Your task to perform on an android device: turn on the 24-hour format for clock Image 0: 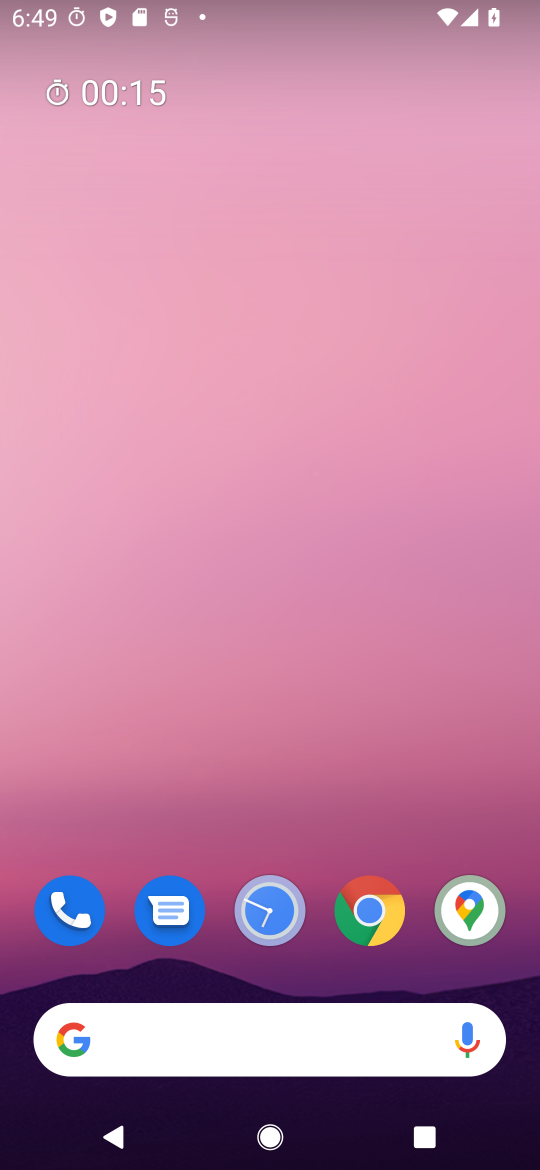
Step 0: drag from (181, 1019) to (172, 114)
Your task to perform on an android device: turn on the 24-hour format for clock Image 1: 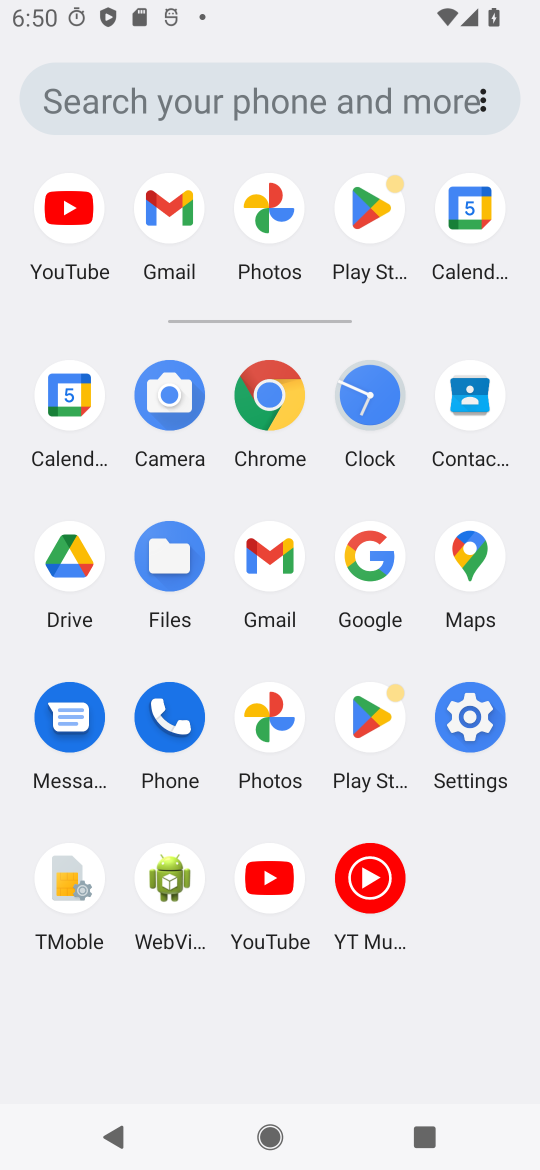
Step 1: click (383, 407)
Your task to perform on an android device: turn on the 24-hour format for clock Image 2: 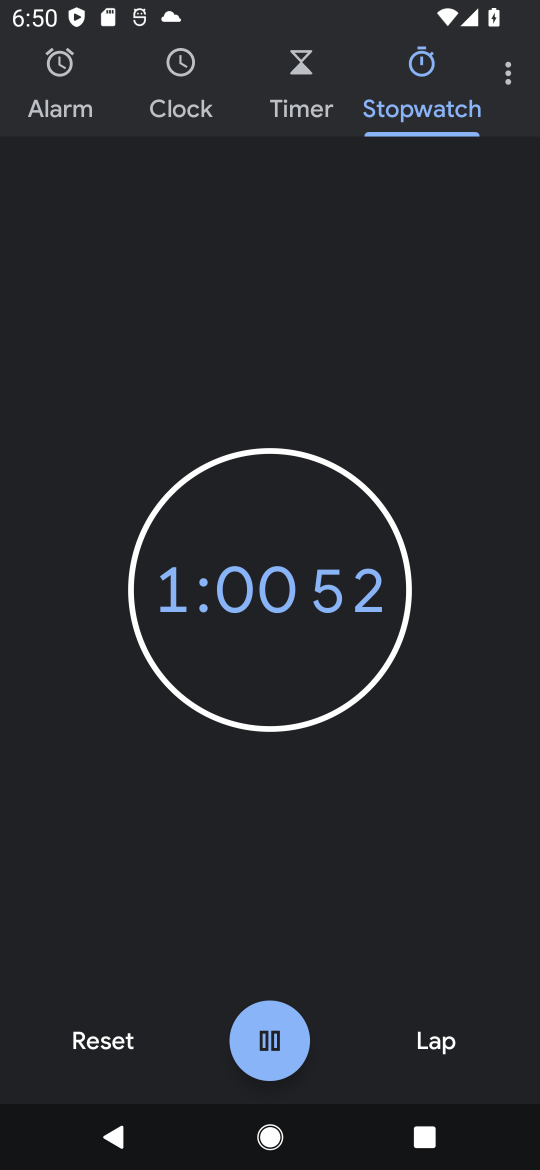
Step 2: click (511, 74)
Your task to perform on an android device: turn on the 24-hour format for clock Image 3: 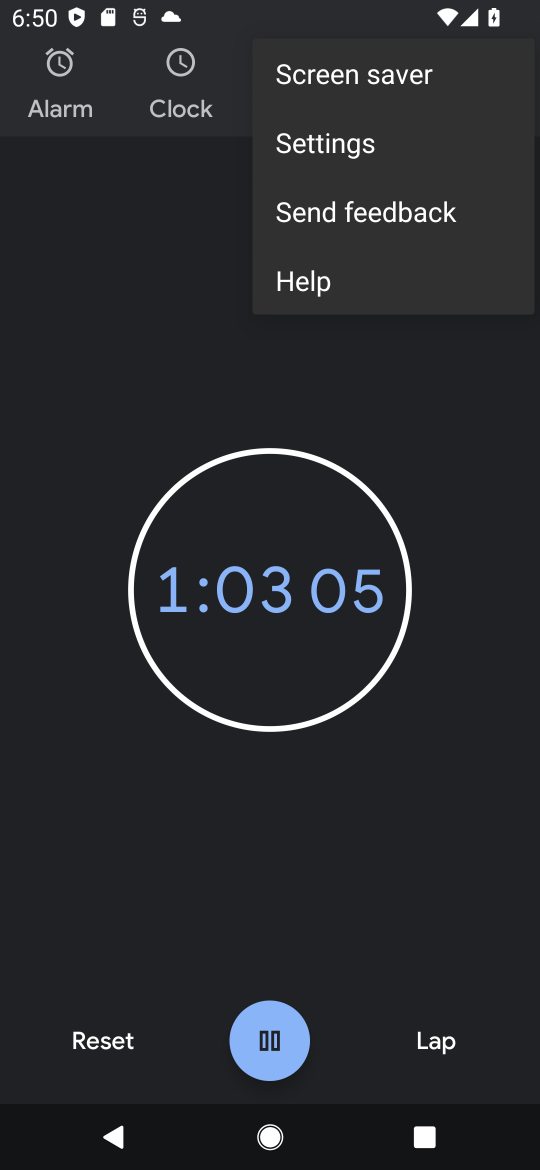
Step 3: click (370, 138)
Your task to perform on an android device: turn on the 24-hour format for clock Image 4: 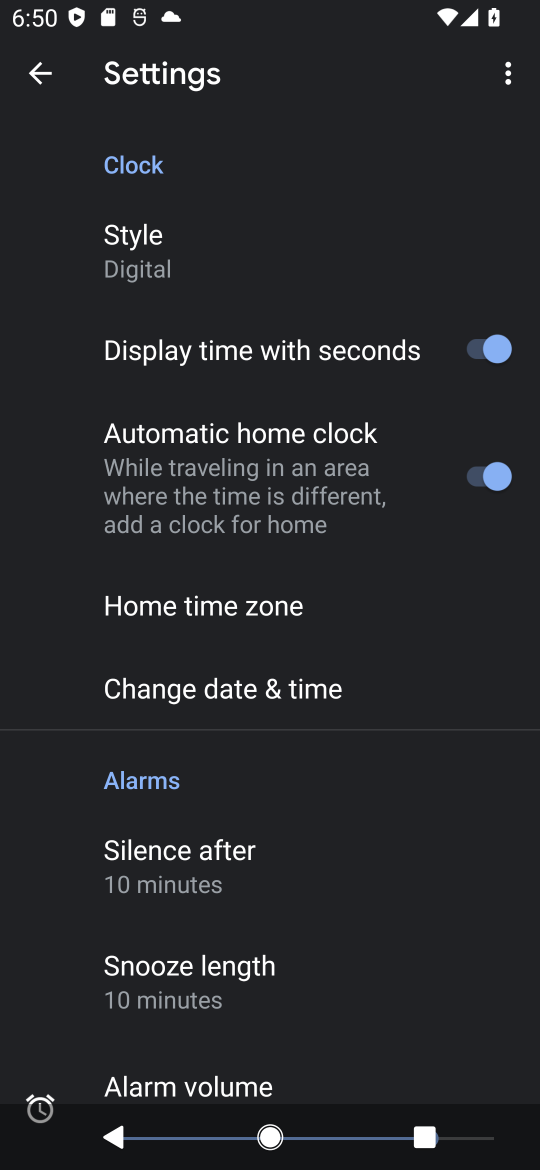
Step 4: click (252, 676)
Your task to perform on an android device: turn on the 24-hour format for clock Image 5: 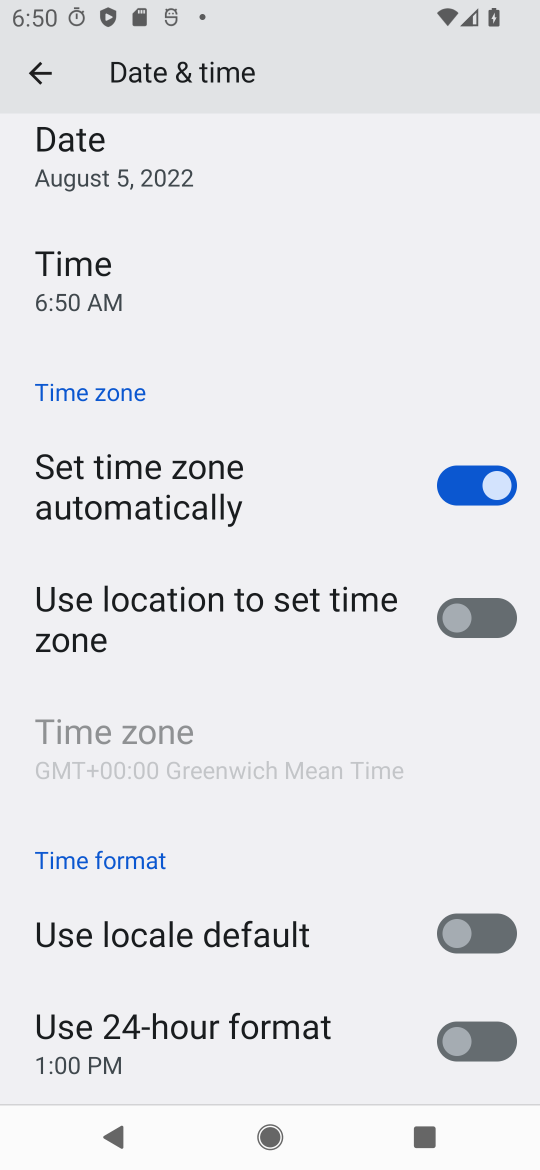
Step 5: drag from (354, 925) to (323, 366)
Your task to perform on an android device: turn on the 24-hour format for clock Image 6: 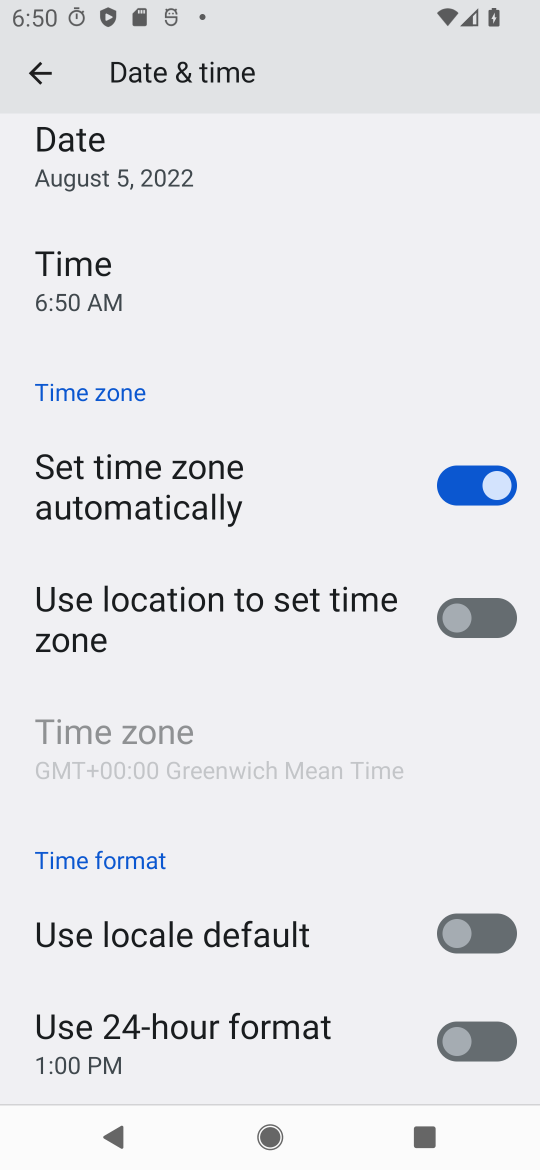
Step 6: click (490, 1034)
Your task to perform on an android device: turn on the 24-hour format for clock Image 7: 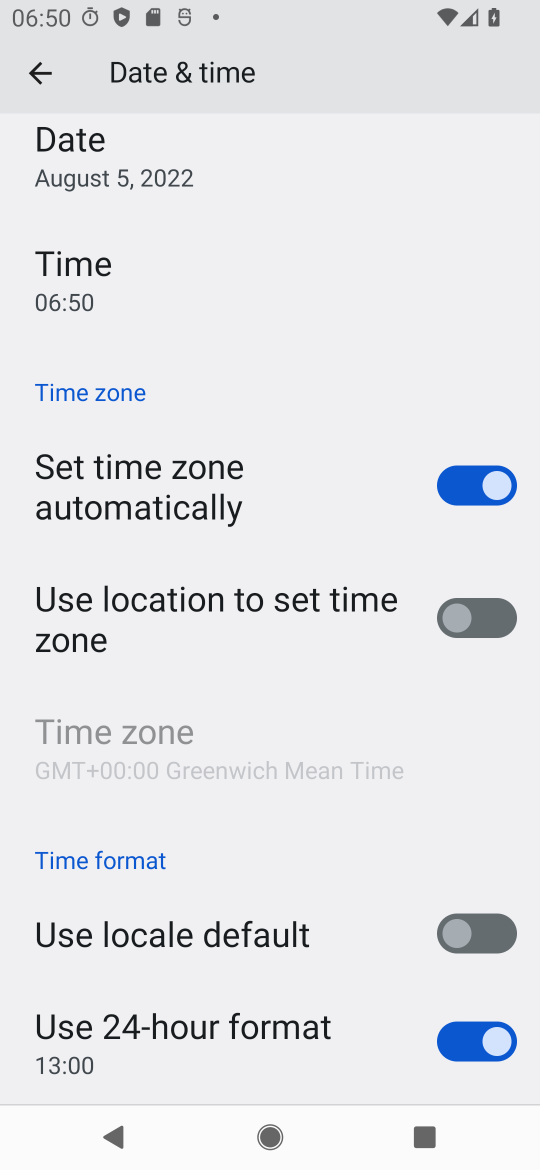
Step 7: task complete